Your task to perform on an android device: turn on translation in the chrome app Image 0: 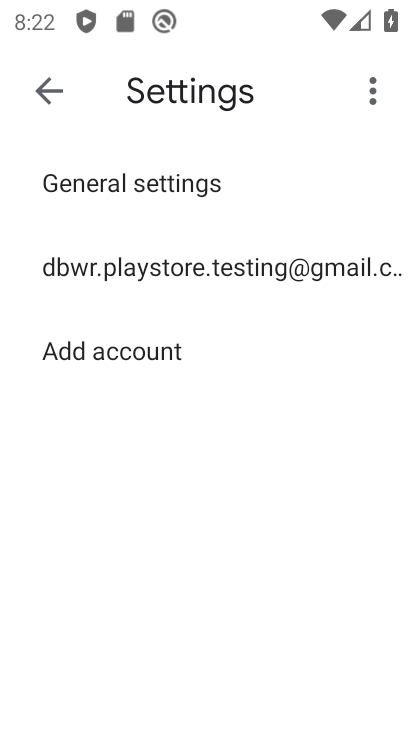
Step 0: press home button
Your task to perform on an android device: turn on translation in the chrome app Image 1: 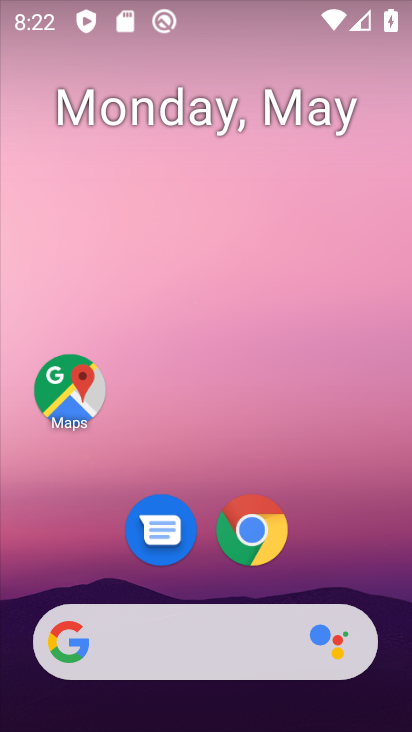
Step 1: click (273, 536)
Your task to perform on an android device: turn on translation in the chrome app Image 2: 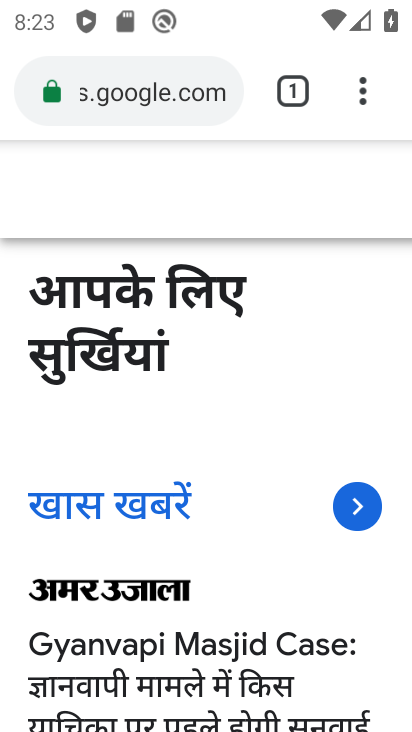
Step 2: click (370, 89)
Your task to perform on an android device: turn on translation in the chrome app Image 3: 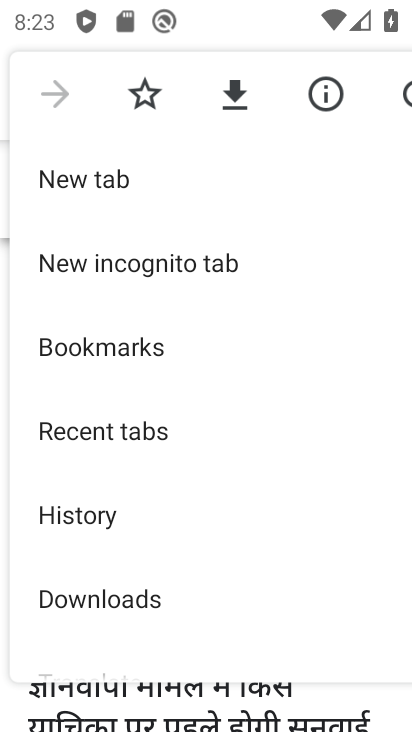
Step 3: drag from (192, 642) to (158, 158)
Your task to perform on an android device: turn on translation in the chrome app Image 4: 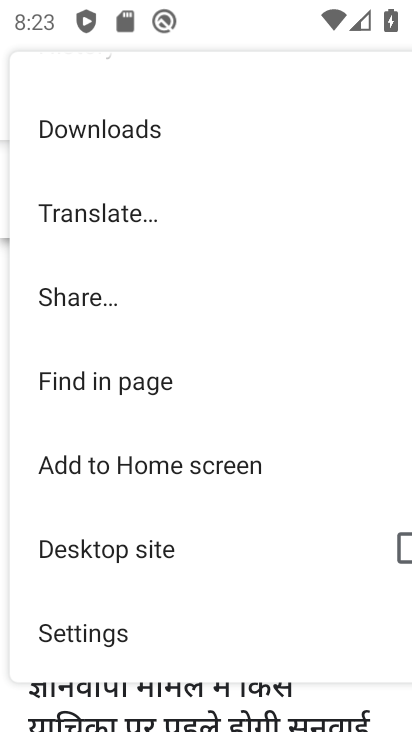
Step 4: click (92, 636)
Your task to perform on an android device: turn on translation in the chrome app Image 5: 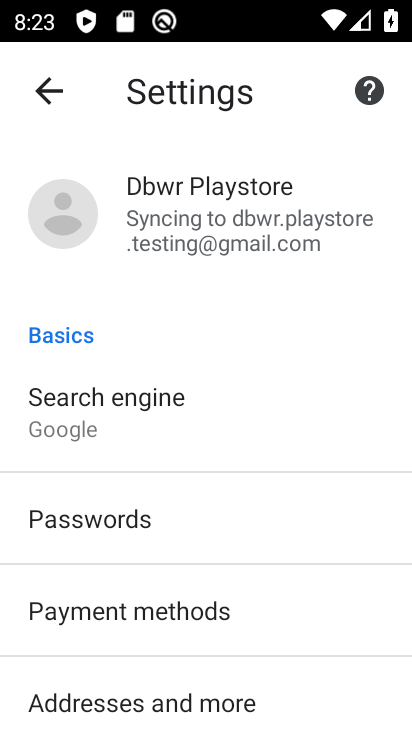
Step 5: drag from (118, 663) to (126, 257)
Your task to perform on an android device: turn on translation in the chrome app Image 6: 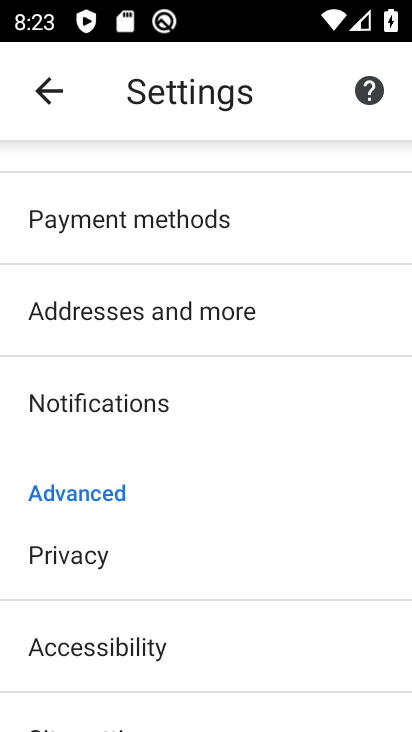
Step 6: drag from (164, 715) to (152, 286)
Your task to perform on an android device: turn on translation in the chrome app Image 7: 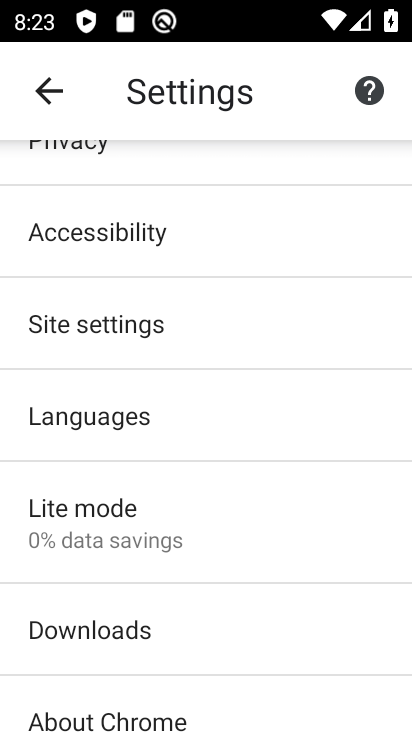
Step 7: click (149, 412)
Your task to perform on an android device: turn on translation in the chrome app Image 8: 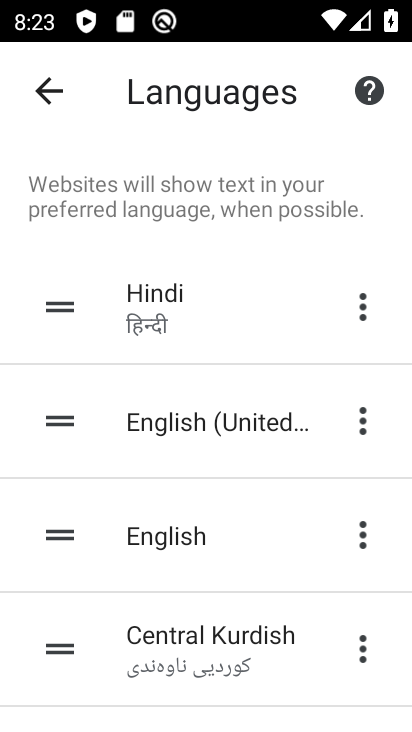
Step 8: click (54, 94)
Your task to perform on an android device: turn on translation in the chrome app Image 9: 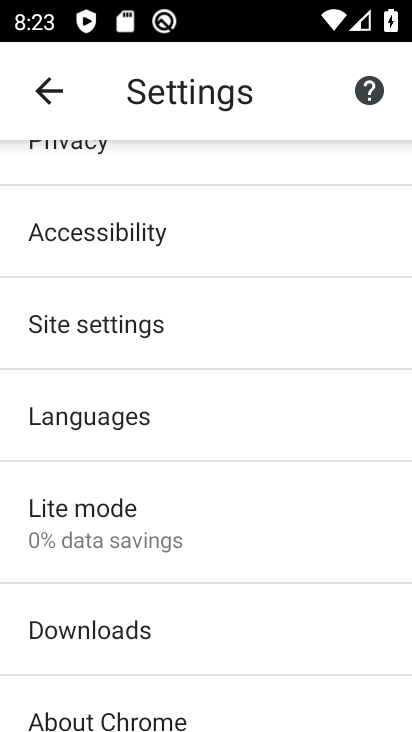
Step 9: click (138, 416)
Your task to perform on an android device: turn on translation in the chrome app Image 10: 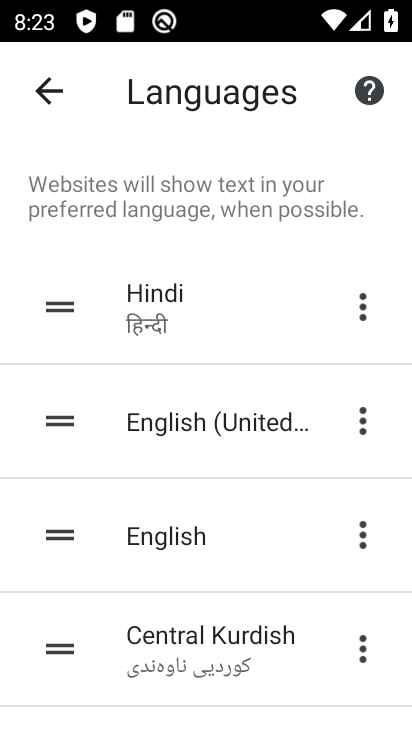
Step 10: task complete